Your task to perform on an android device: Go to Yahoo.com Image 0: 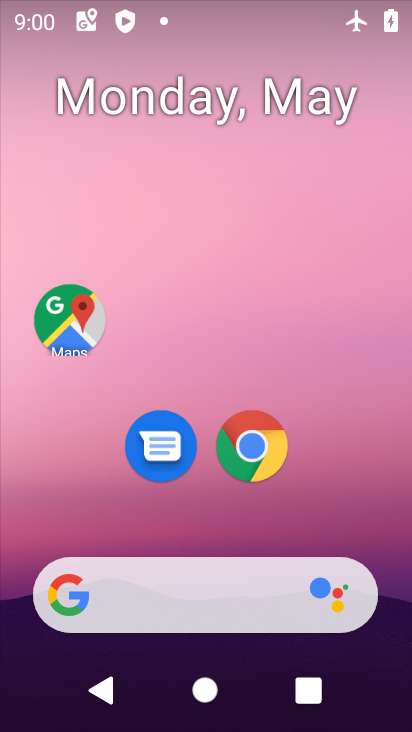
Step 0: click (249, 436)
Your task to perform on an android device: Go to Yahoo.com Image 1: 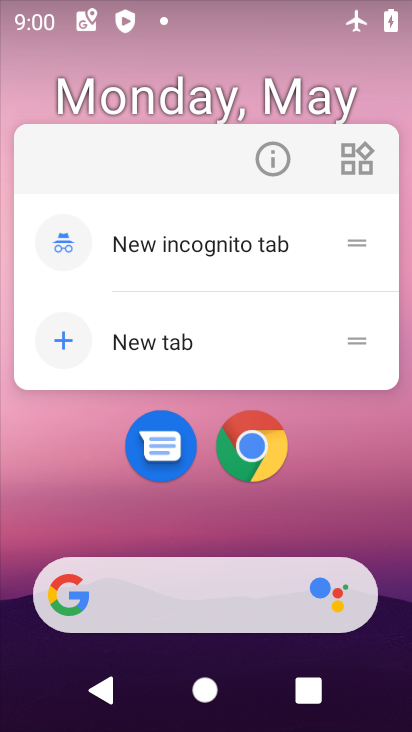
Step 1: click (250, 439)
Your task to perform on an android device: Go to Yahoo.com Image 2: 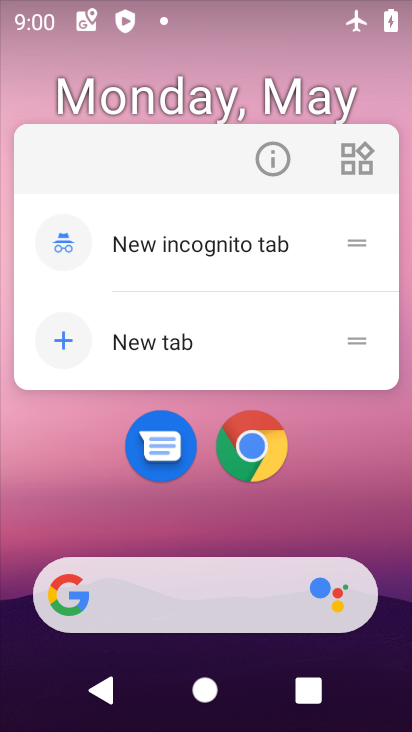
Step 2: click (248, 439)
Your task to perform on an android device: Go to Yahoo.com Image 3: 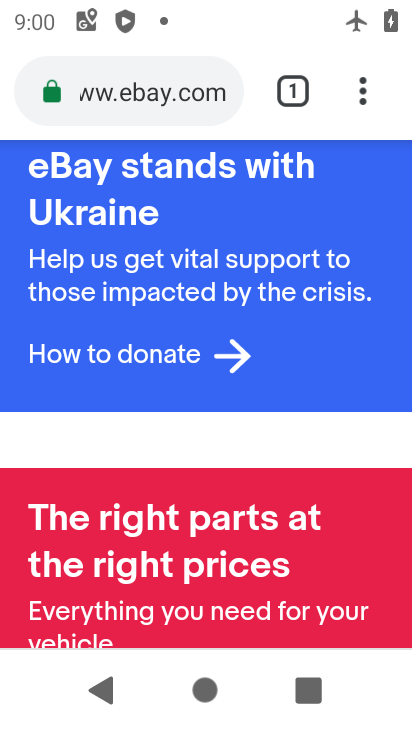
Step 3: click (291, 93)
Your task to perform on an android device: Go to Yahoo.com Image 4: 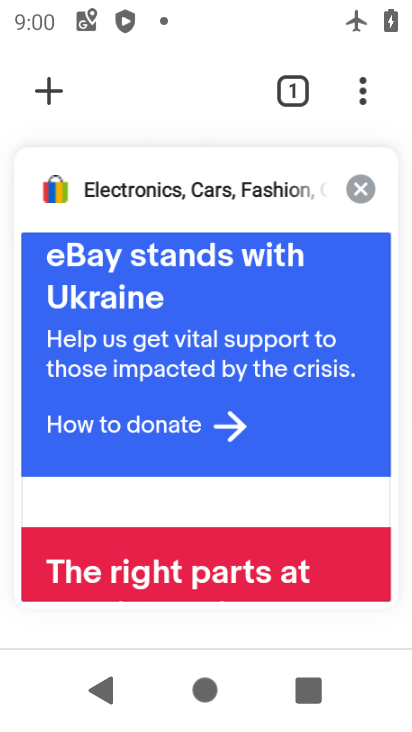
Step 4: click (363, 183)
Your task to perform on an android device: Go to Yahoo.com Image 5: 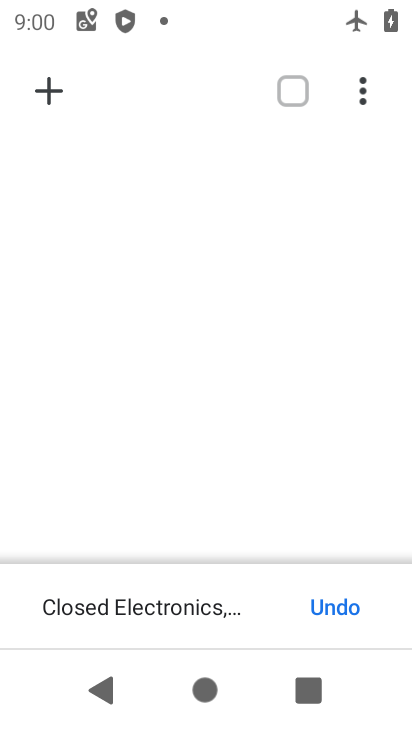
Step 5: click (52, 98)
Your task to perform on an android device: Go to Yahoo.com Image 6: 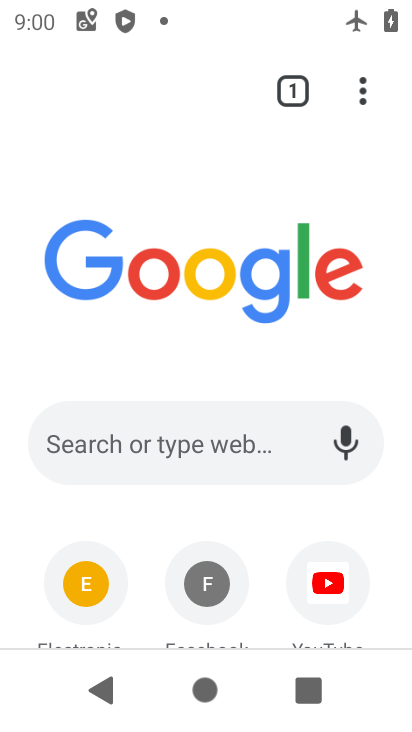
Step 6: drag from (139, 597) to (133, 131)
Your task to perform on an android device: Go to Yahoo.com Image 7: 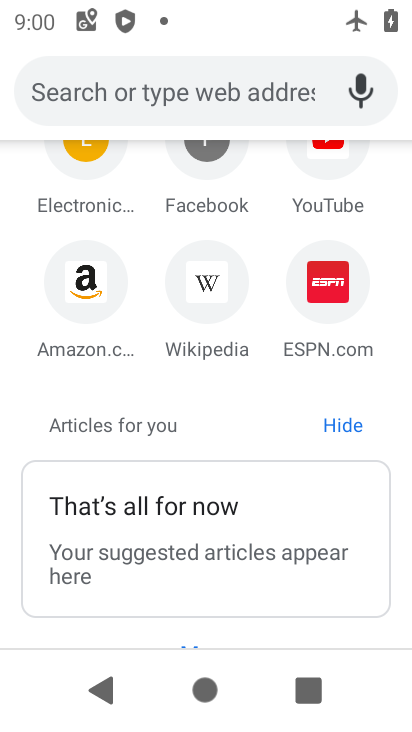
Step 7: click (129, 83)
Your task to perform on an android device: Go to Yahoo.com Image 8: 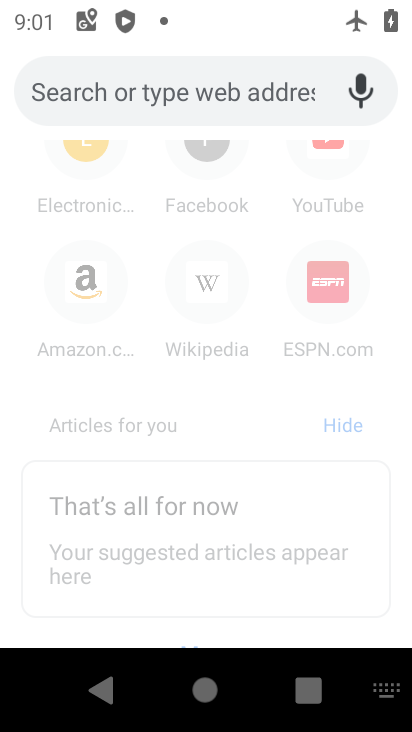
Step 8: type "yahoo.com"
Your task to perform on an android device: Go to Yahoo.com Image 9: 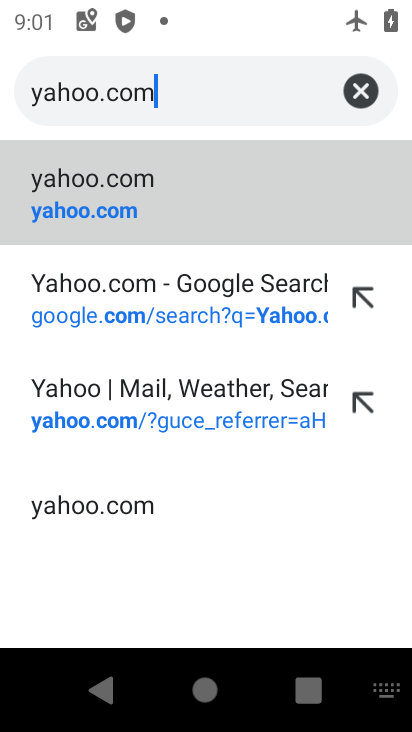
Step 9: click (153, 197)
Your task to perform on an android device: Go to Yahoo.com Image 10: 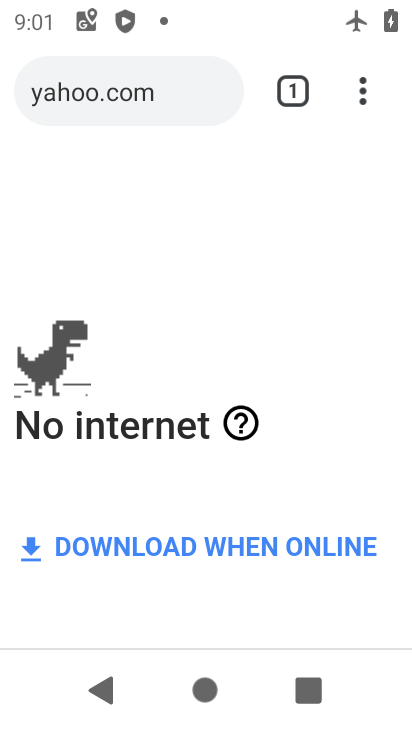
Step 10: drag from (257, 6) to (265, 552)
Your task to perform on an android device: Go to Yahoo.com Image 11: 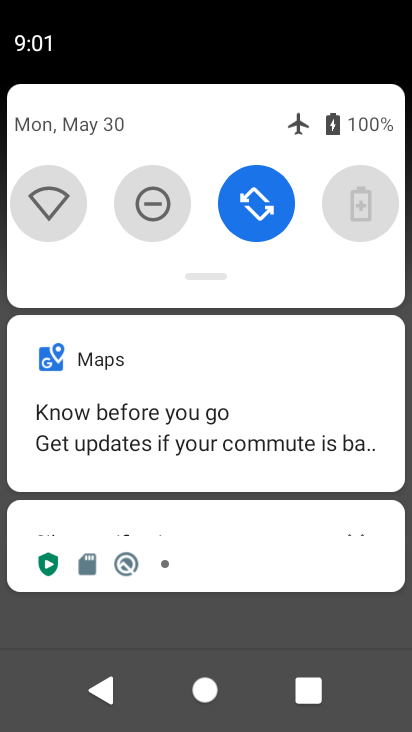
Step 11: drag from (219, 276) to (220, 728)
Your task to perform on an android device: Go to Yahoo.com Image 12: 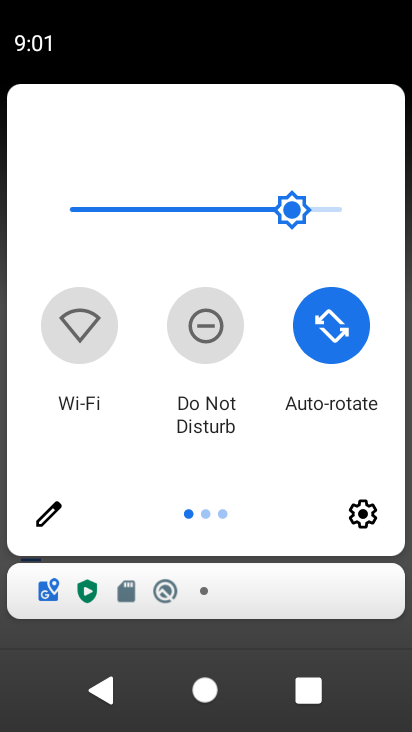
Step 12: drag from (371, 367) to (21, 368)
Your task to perform on an android device: Go to Yahoo.com Image 13: 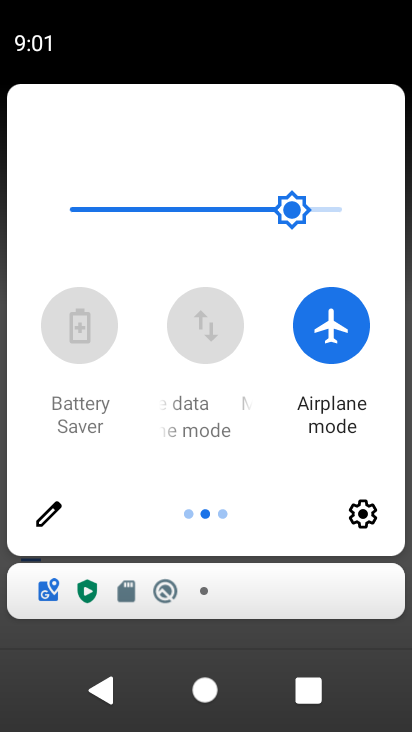
Step 13: click (339, 333)
Your task to perform on an android device: Go to Yahoo.com Image 14: 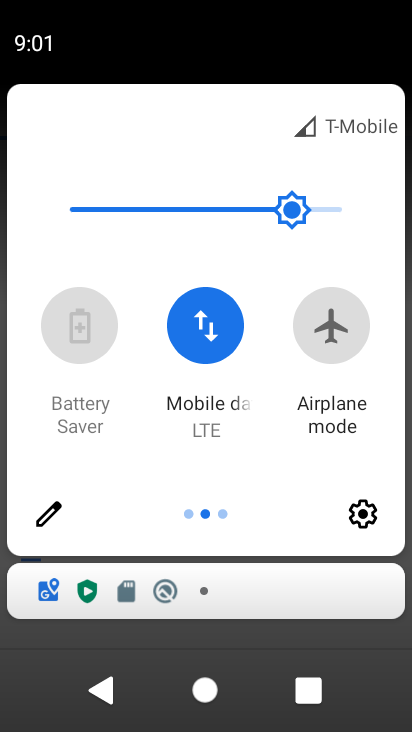
Step 14: task complete